Your task to perform on an android device: open a bookmark in the chrome app Image 0: 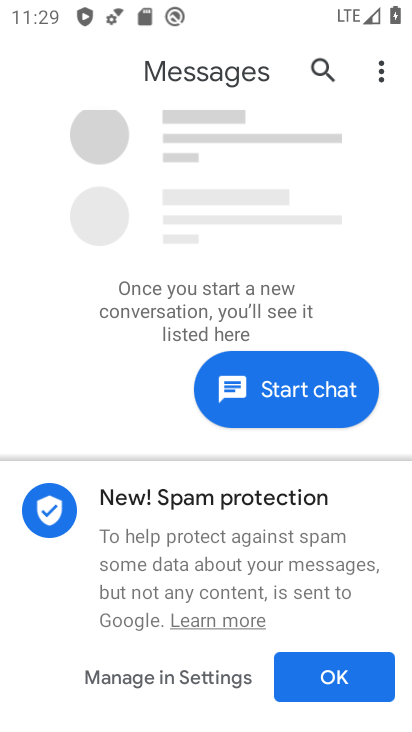
Step 0: press home button
Your task to perform on an android device: open a bookmark in the chrome app Image 1: 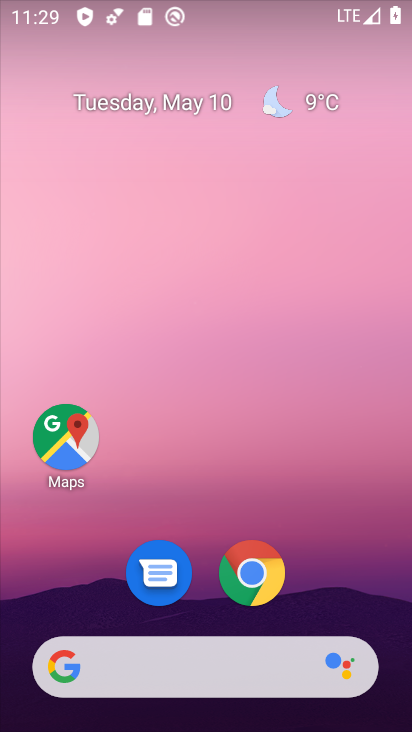
Step 1: click (243, 581)
Your task to perform on an android device: open a bookmark in the chrome app Image 2: 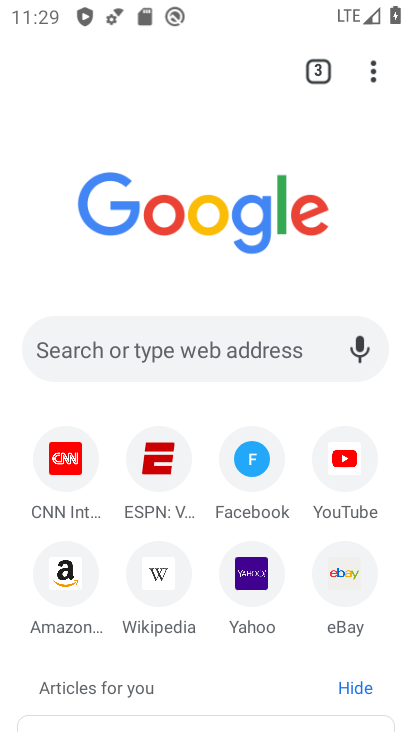
Step 2: task complete